Your task to perform on an android device: snooze an email in the gmail app Image 0: 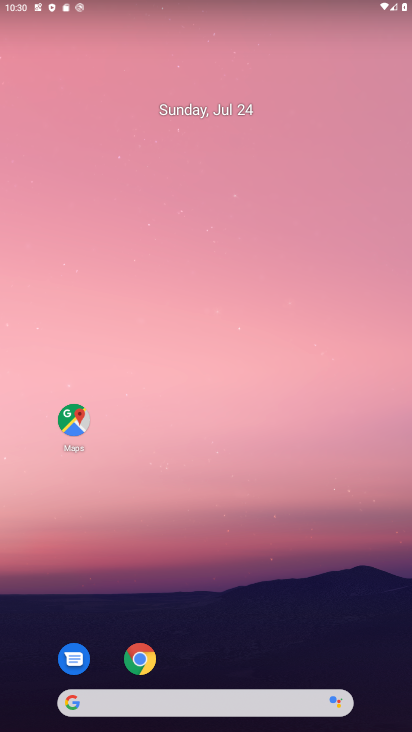
Step 0: drag from (380, 691) to (234, 6)
Your task to perform on an android device: snooze an email in the gmail app Image 1: 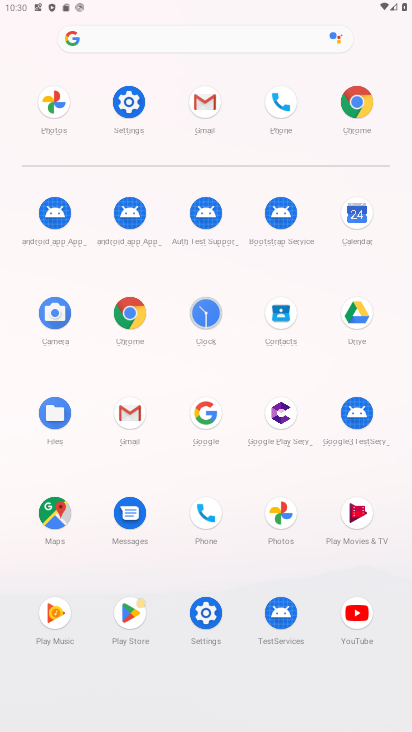
Step 1: click (137, 409)
Your task to perform on an android device: snooze an email in the gmail app Image 2: 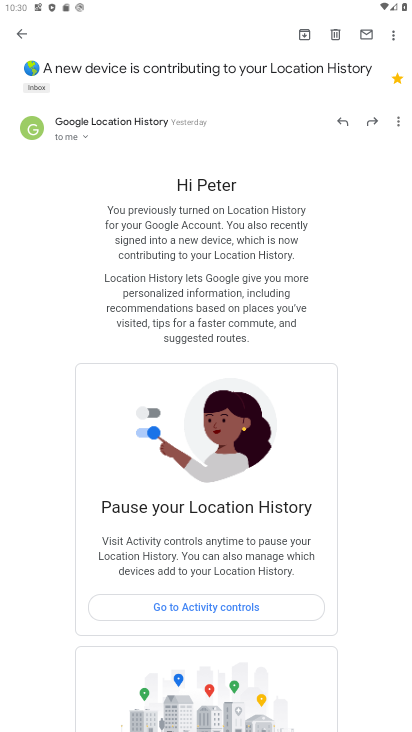
Step 2: click (395, 114)
Your task to perform on an android device: snooze an email in the gmail app Image 3: 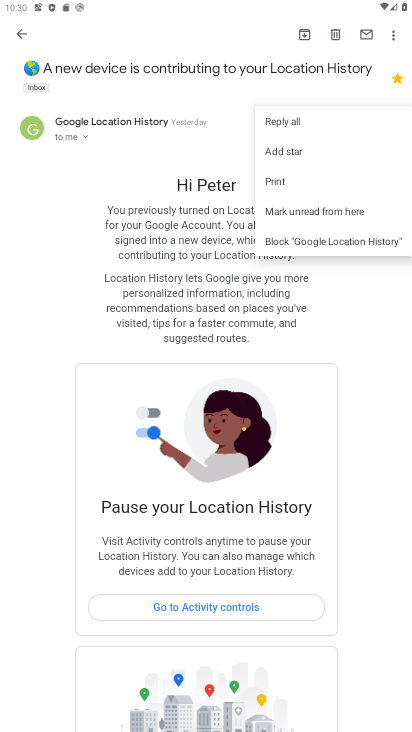
Step 3: click (158, 119)
Your task to perform on an android device: snooze an email in the gmail app Image 4: 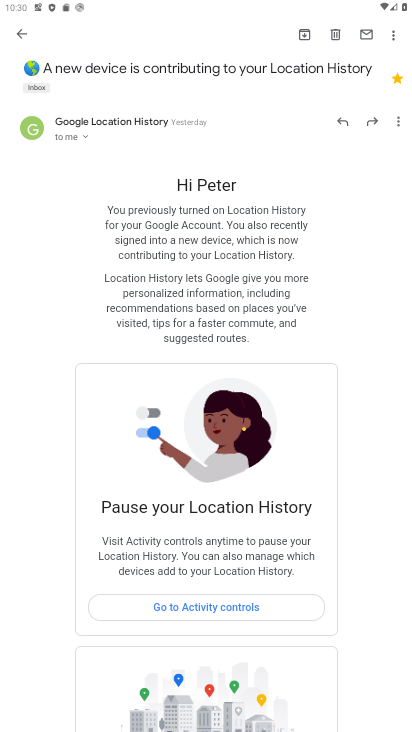
Step 4: click (396, 30)
Your task to perform on an android device: snooze an email in the gmail app Image 5: 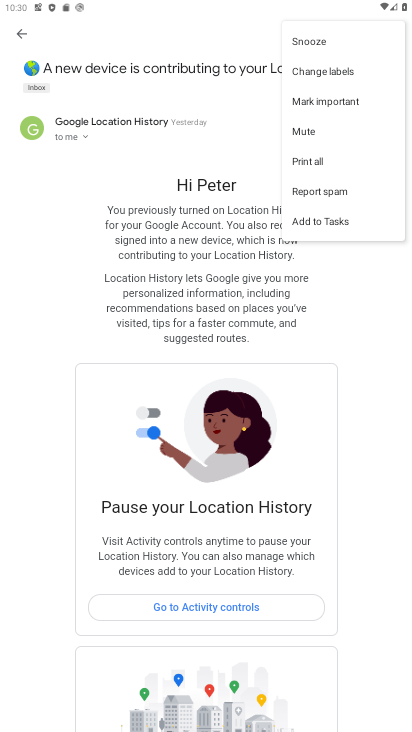
Step 5: click (294, 34)
Your task to perform on an android device: snooze an email in the gmail app Image 6: 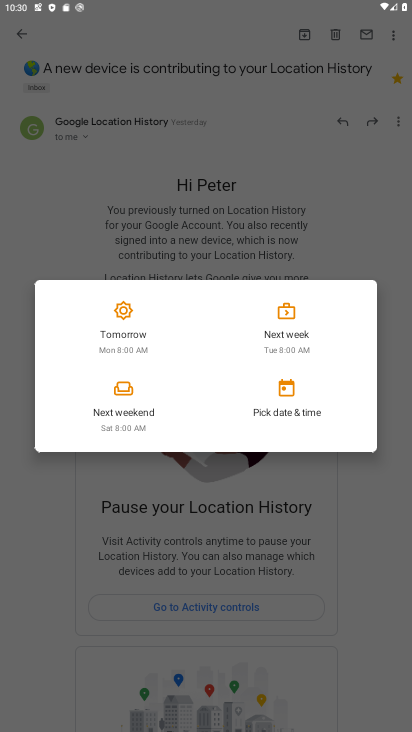
Step 6: click (127, 327)
Your task to perform on an android device: snooze an email in the gmail app Image 7: 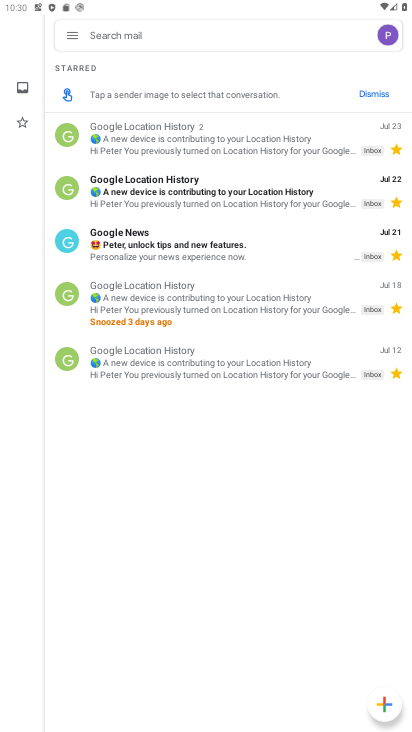
Step 7: task complete